Your task to perform on an android device: turn on bluetooth scan Image 0: 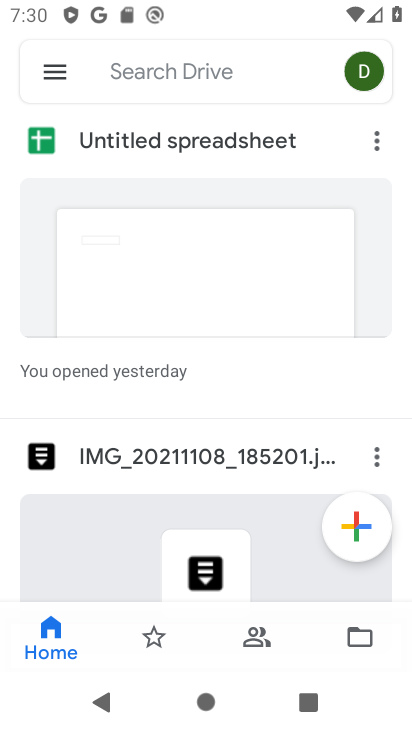
Step 0: press home button
Your task to perform on an android device: turn on bluetooth scan Image 1: 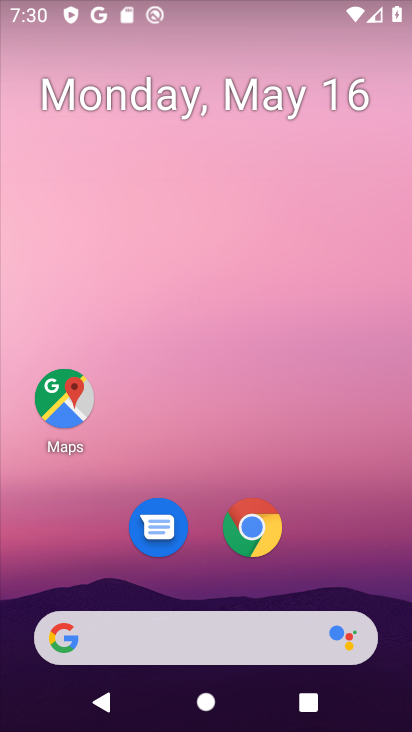
Step 1: drag from (208, 538) to (203, 270)
Your task to perform on an android device: turn on bluetooth scan Image 2: 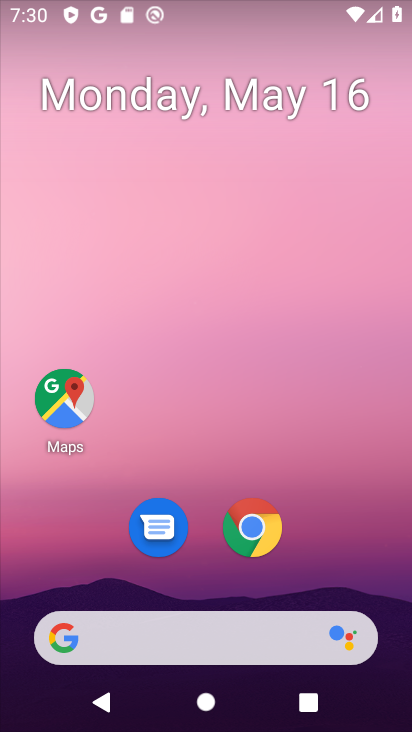
Step 2: drag from (217, 485) to (268, 242)
Your task to perform on an android device: turn on bluetooth scan Image 3: 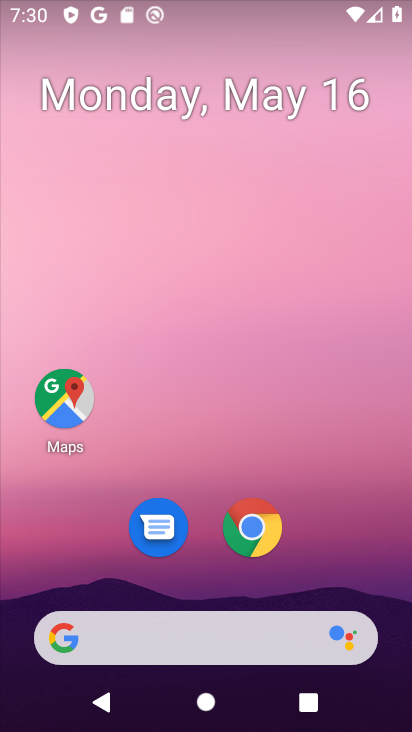
Step 3: drag from (254, 562) to (318, 180)
Your task to perform on an android device: turn on bluetooth scan Image 4: 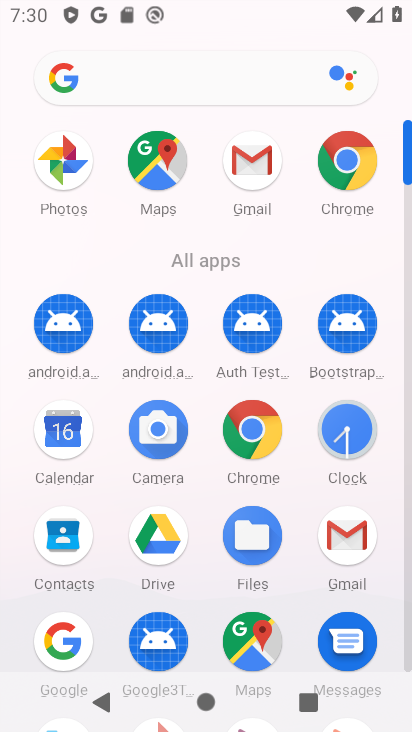
Step 4: drag from (182, 591) to (301, 200)
Your task to perform on an android device: turn on bluetooth scan Image 5: 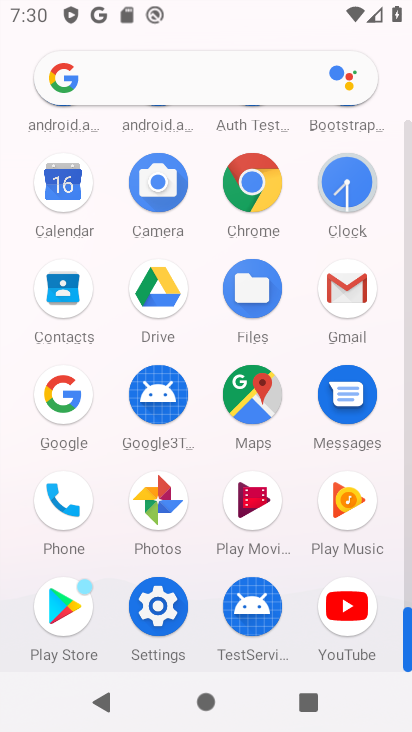
Step 5: click (156, 604)
Your task to perform on an android device: turn on bluetooth scan Image 6: 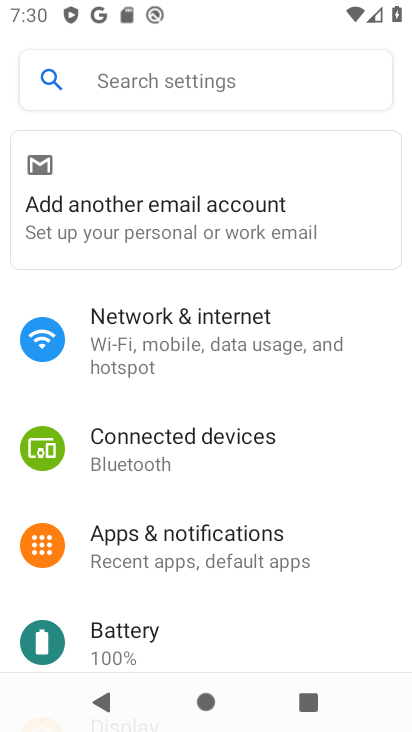
Step 6: click (251, 67)
Your task to perform on an android device: turn on bluetooth scan Image 7: 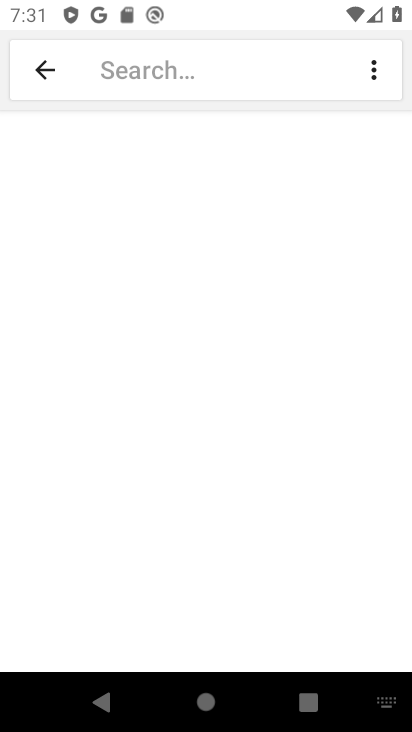
Step 7: click (188, 59)
Your task to perform on an android device: turn on bluetooth scan Image 8: 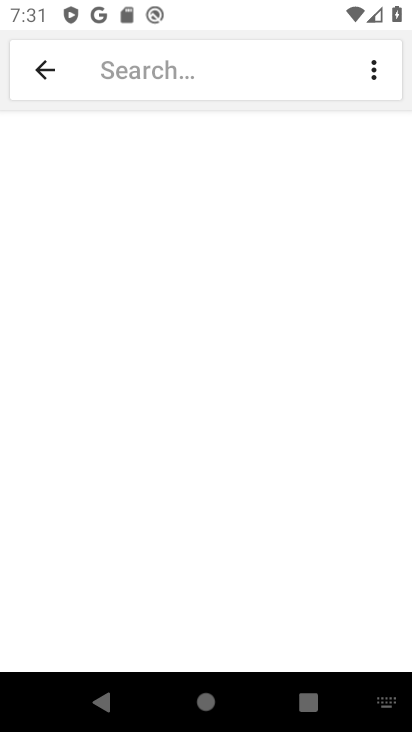
Step 8: type "bluetooth scan"
Your task to perform on an android device: turn on bluetooth scan Image 9: 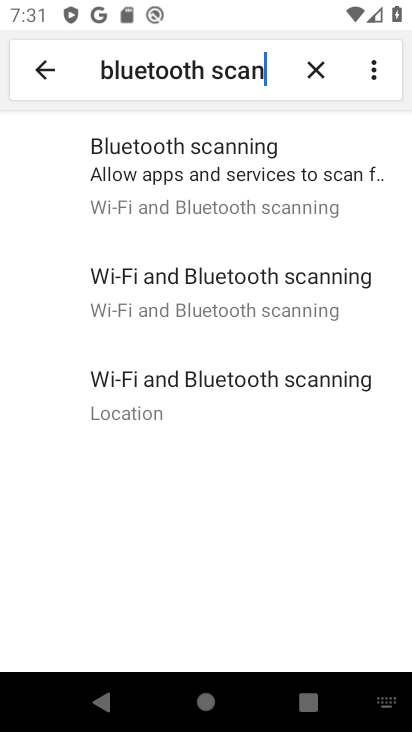
Step 9: click (259, 180)
Your task to perform on an android device: turn on bluetooth scan Image 10: 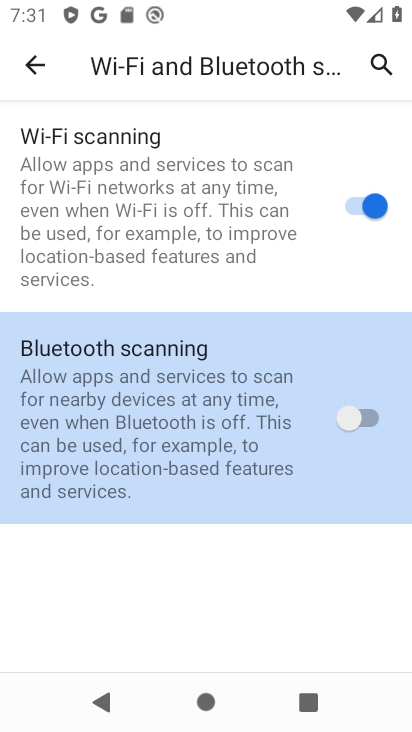
Step 10: click (347, 418)
Your task to perform on an android device: turn on bluetooth scan Image 11: 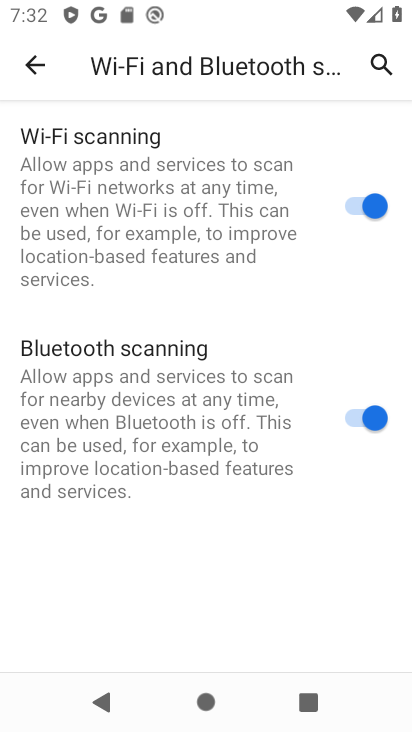
Step 11: task complete